Your task to perform on an android device: turn off data saver in the chrome app Image 0: 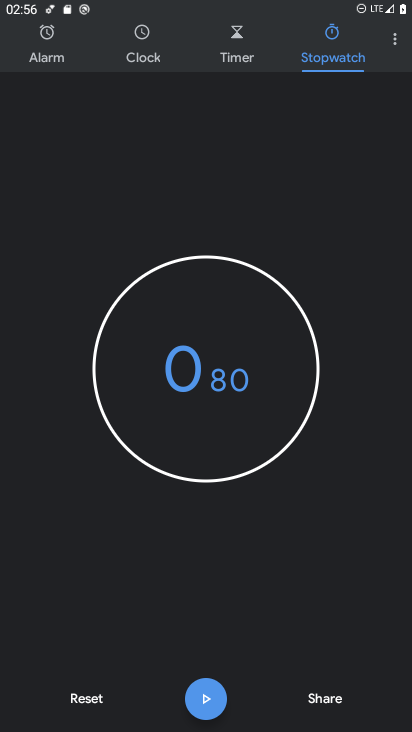
Step 0: press home button
Your task to perform on an android device: turn off data saver in the chrome app Image 1: 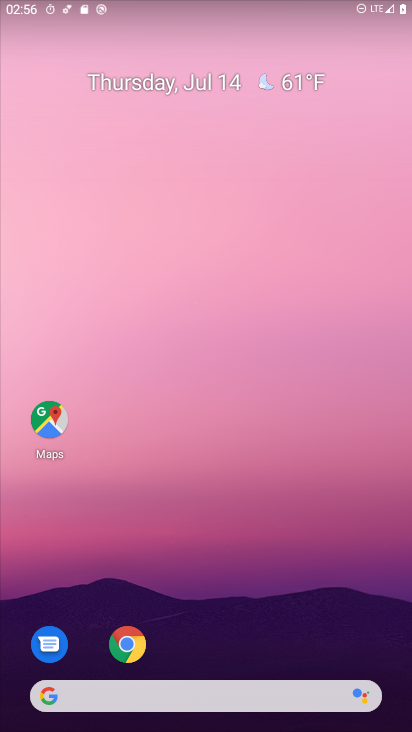
Step 1: drag from (321, 378) to (302, 13)
Your task to perform on an android device: turn off data saver in the chrome app Image 2: 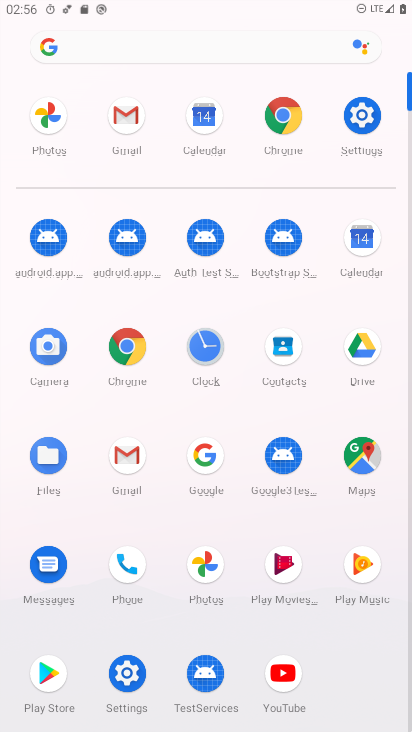
Step 2: click (129, 351)
Your task to perform on an android device: turn off data saver in the chrome app Image 3: 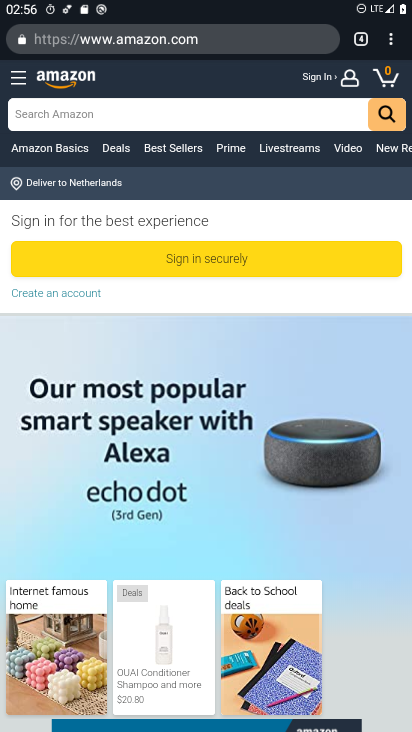
Step 3: drag from (388, 39) to (246, 475)
Your task to perform on an android device: turn off data saver in the chrome app Image 4: 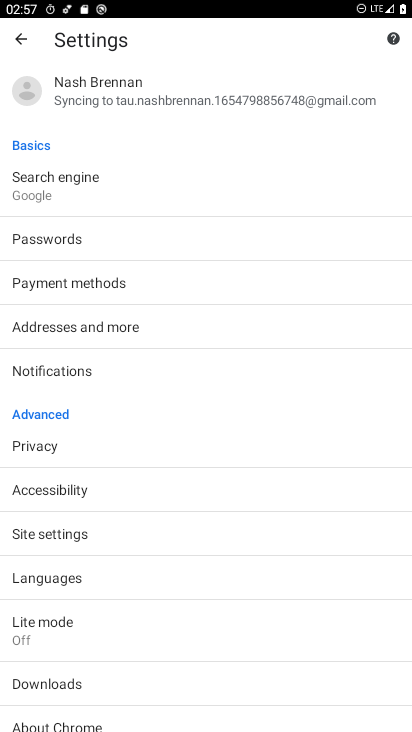
Step 4: click (64, 619)
Your task to perform on an android device: turn off data saver in the chrome app Image 5: 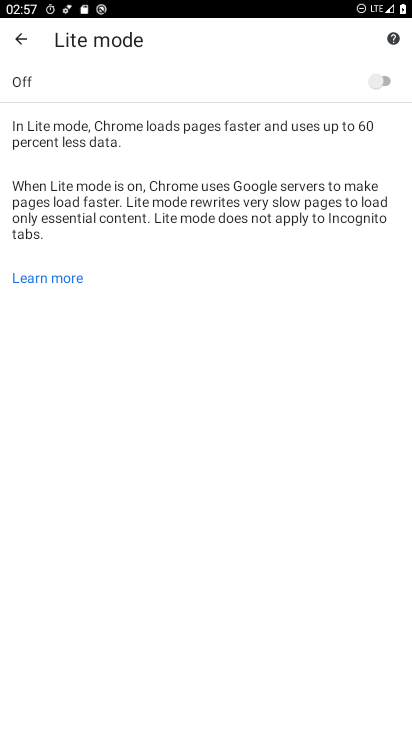
Step 5: task complete